Your task to perform on an android device: turn off smart reply in the gmail app Image 0: 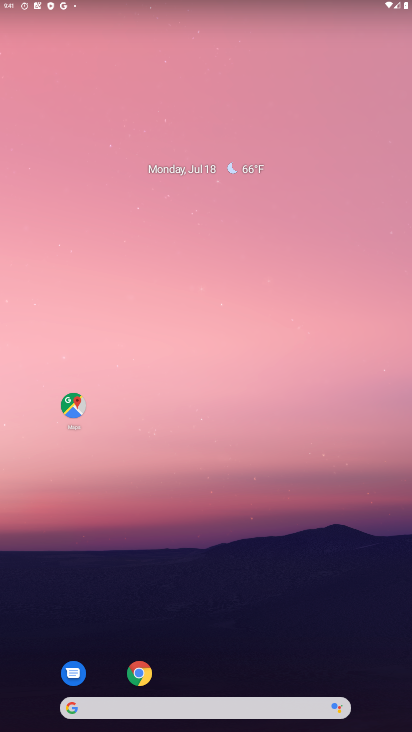
Step 0: drag from (197, 689) to (198, 139)
Your task to perform on an android device: turn off smart reply in the gmail app Image 1: 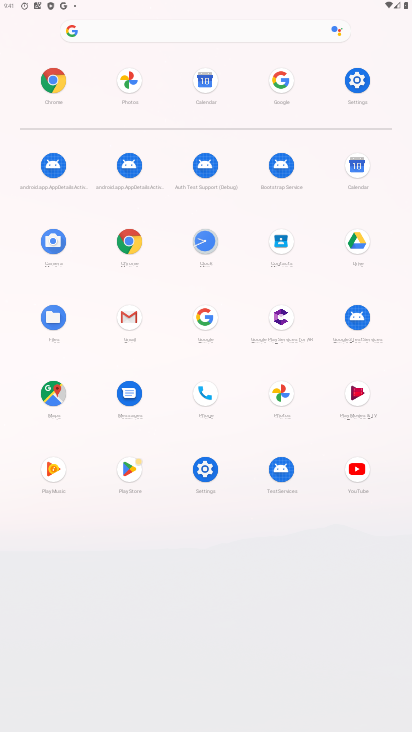
Step 1: click (129, 317)
Your task to perform on an android device: turn off smart reply in the gmail app Image 2: 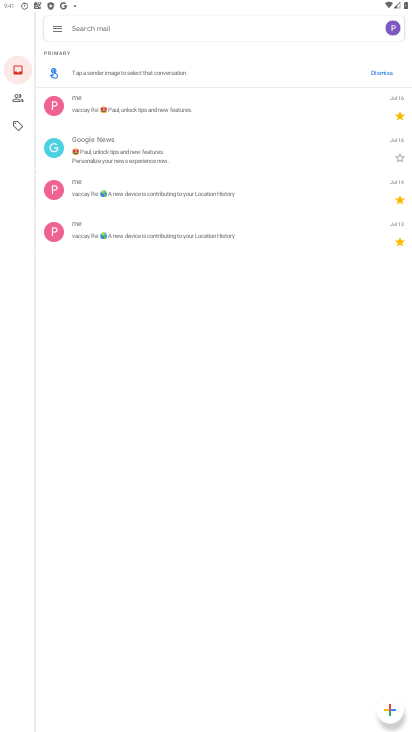
Step 2: click (61, 27)
Your task to perform on an android device: turn off smart reply in the gmail app Image 3: 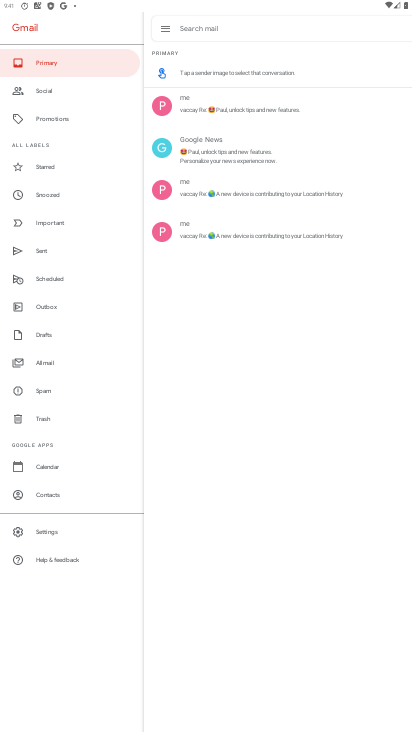
Step 3: click (64, 532)
Your task to perform on an android device: turn off smart reply in the gmail app Image 4: 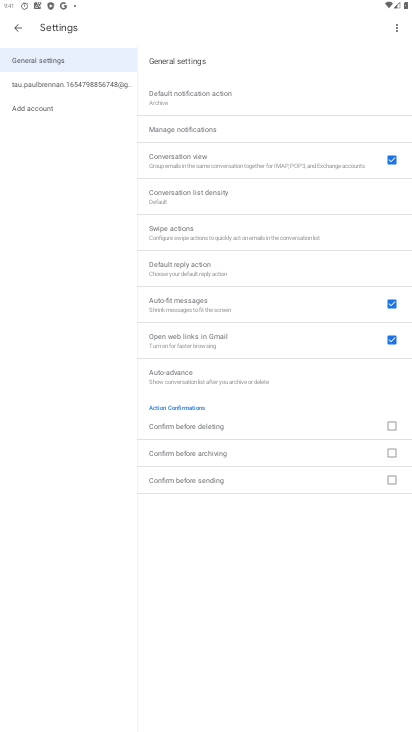
Step 4: click (67, 83)
Your task to perform on an android device: turn off smart reply in the gmail app Image 5: 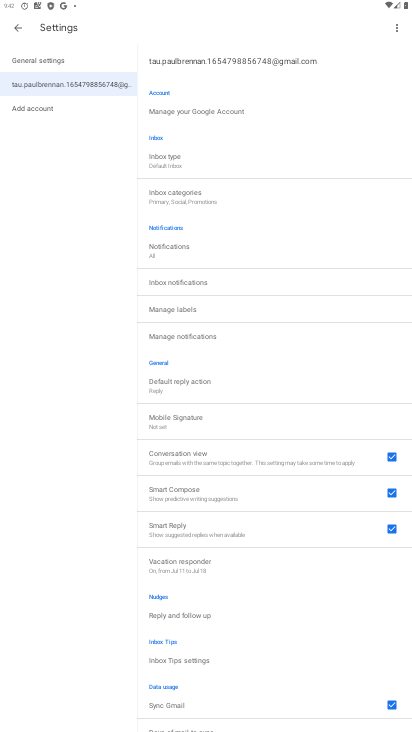
Step 5: click (393, 531)
Your task to perform on an android device: turn off smart reply in the gmail app Image 6: 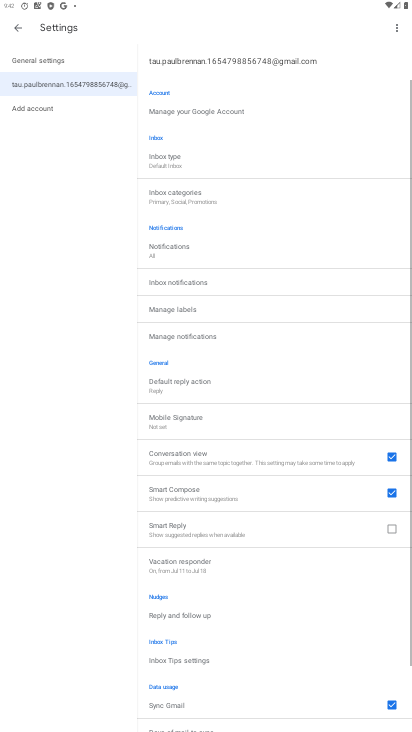
Step 6: task complete